Your task to perform on an android device: Open Google Chrome and click the shortcut for Amazon.com Image 0: 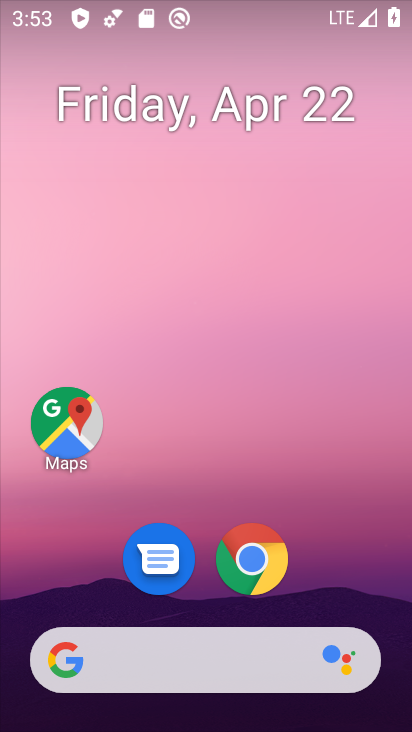
Step 0: click (256, 563)
Your task to perform on an android device: Open Google Chrome and click the shortcut for Amazon.com Image 1: 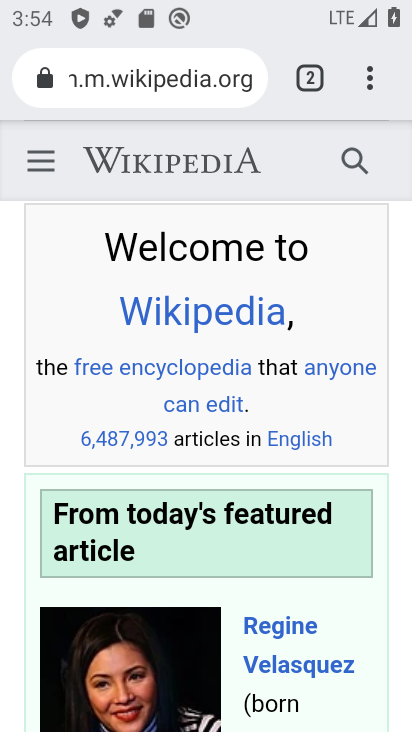
Step 1: click (307, 78)
Your task to perform on an android device: Open Google Chrome and click the shortcut for Amazon.com Image 2: 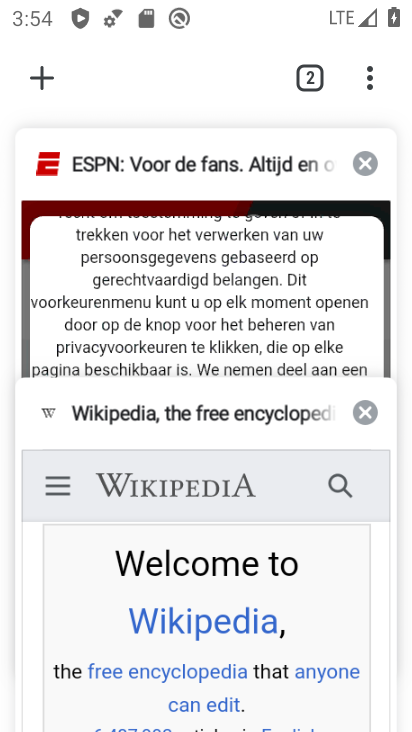
Step 2: click (40, 75)
Your task to perform on an android device: Open Google Chrome and click the shortcut for Amazon.com Image 3: 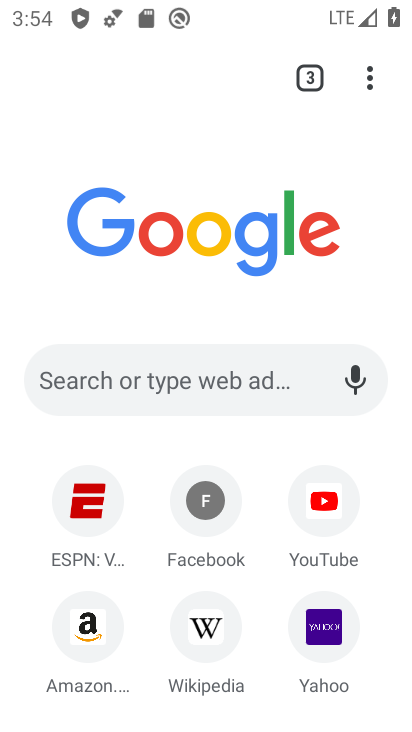
Step 3: click (83, 628)
Your task to perform on an android device: Open Google Chrome and click the shortcut for Amazon.com Image 4: 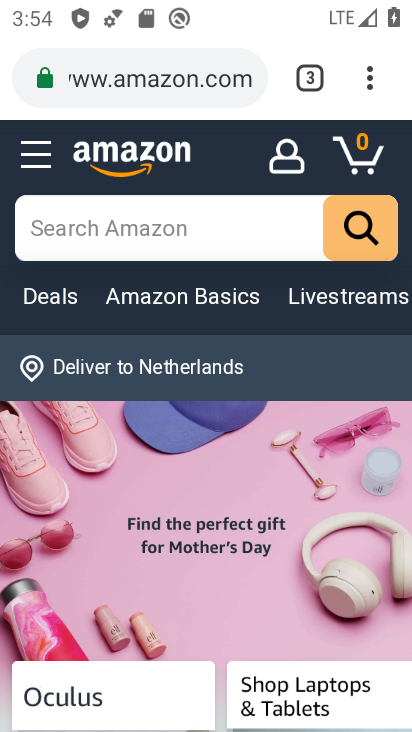
Step 4: click (306, 75)
Your task to perform on an android device: Open Google Chrome and click the shortcut for Amazon.com Image 5: 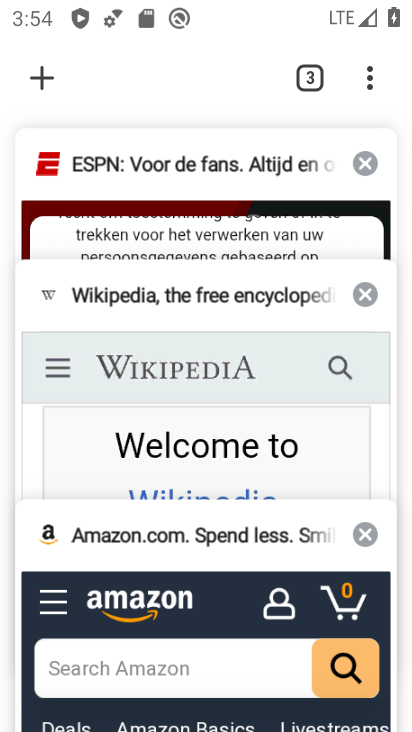
Step 5: click (38, 77)
Your task to perform on an android device: Open Google Chrome and click the shortcut for Amazon.com Image 6: 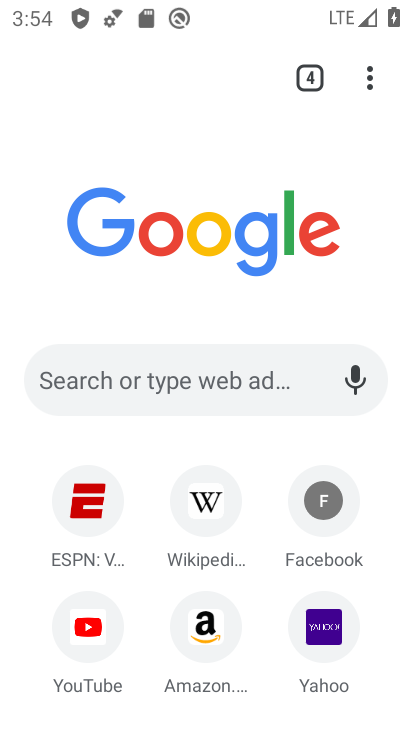
Step 6: click (194, 620)
Your task to perform on an android device: Open Google Chrome and click the shortcut for Amazon.com Image 7: 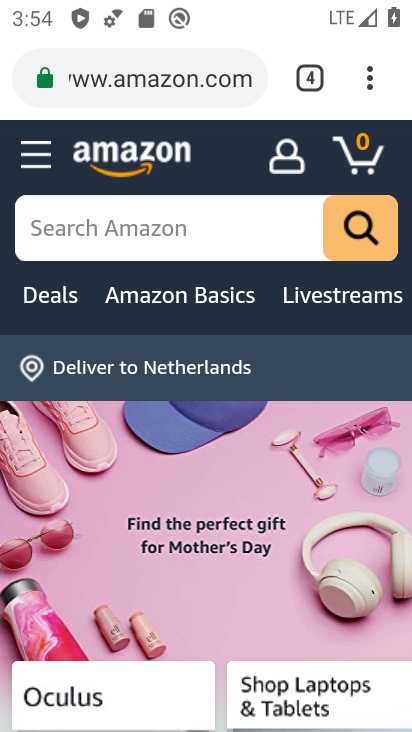
Step 7: task complete